Your task to perform on an android device: Open Reddit.com Image 0: 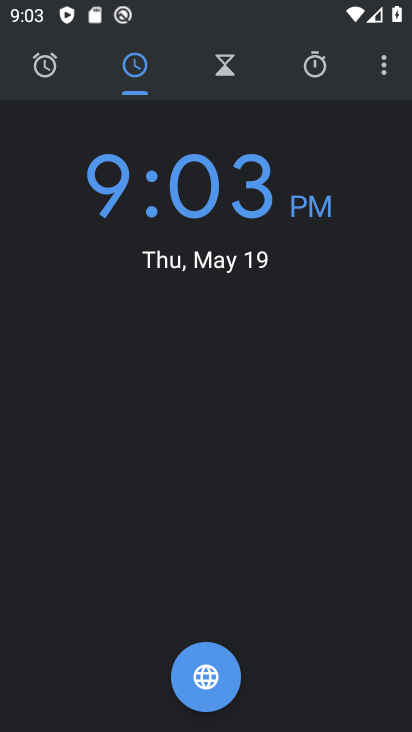
Step 0: press home button
Your task to perform on an android device: Open Reddit.com Image 1: 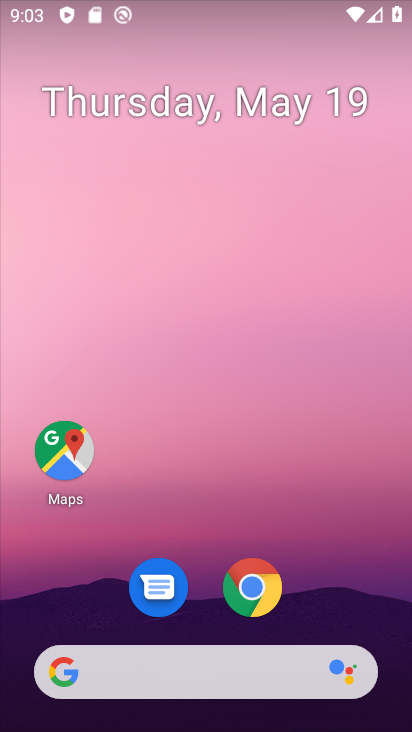
Step 1: click (243, 586)
Your task to perform on an android device: Open Reddit.com Image 2: 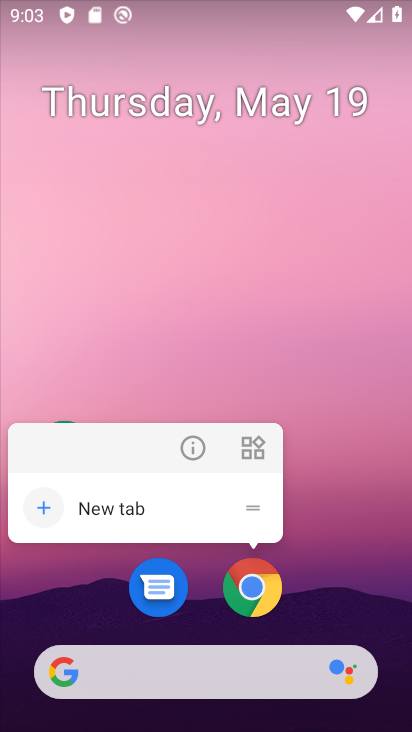
Step 2: click (250, 575)
Your task to perform on an android device: Open Reddit.com Image 3: 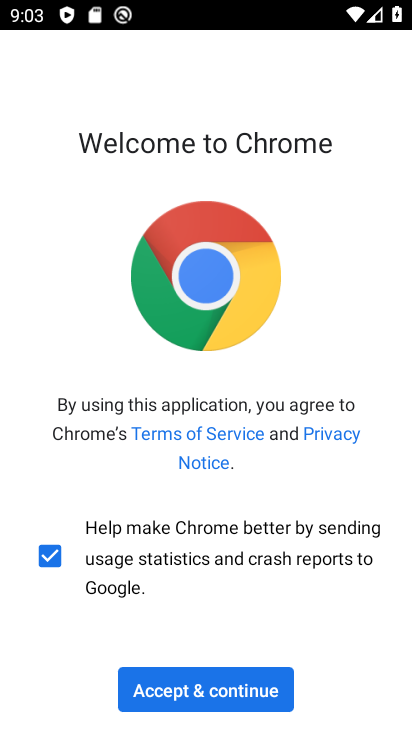
Step 3: click (164, 689)
Your task to perform on an android device: Open Reddit.com Image 4: 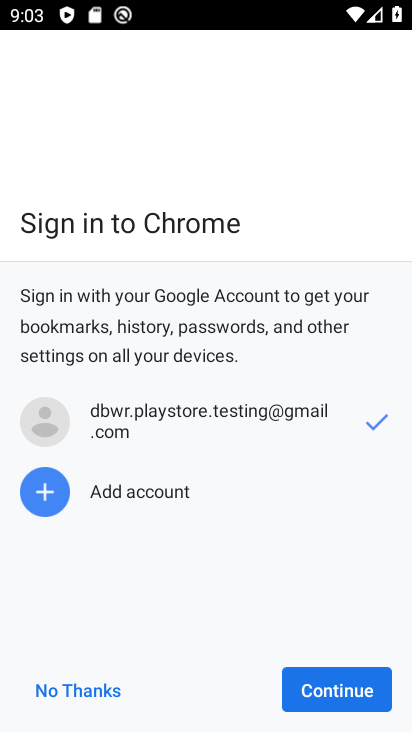
Step 4: click (340, 698)
Your task to perform on an android device: Open Reddit.com Image 5: 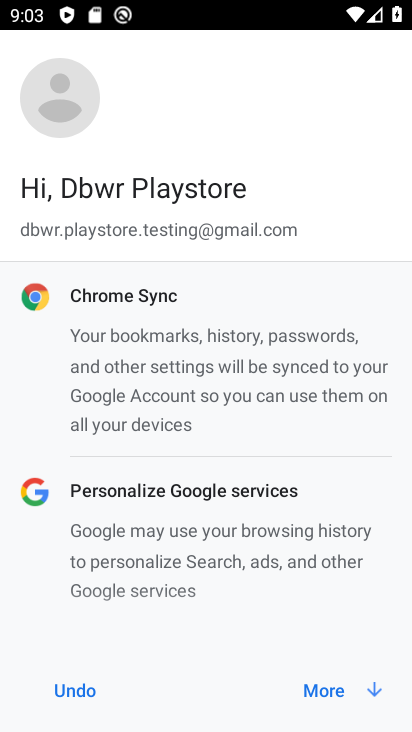
Step 5: click (317, 683)
Your task to perform on an android device: Open Reddit.com Image 6: 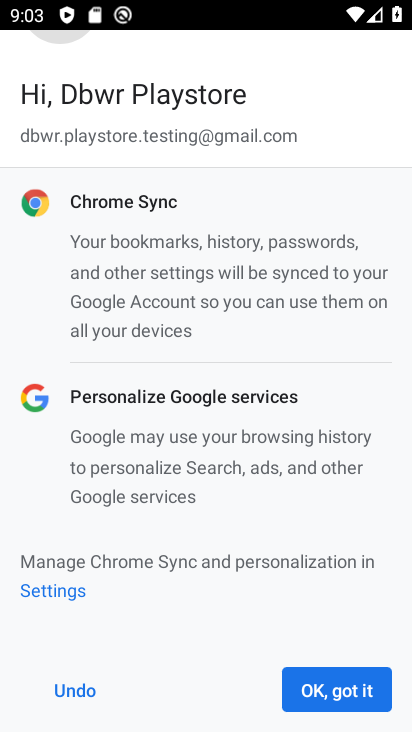
Step 6: click (317, 682)
Your task to perform on an android device: Open Reddit.com Image 7: 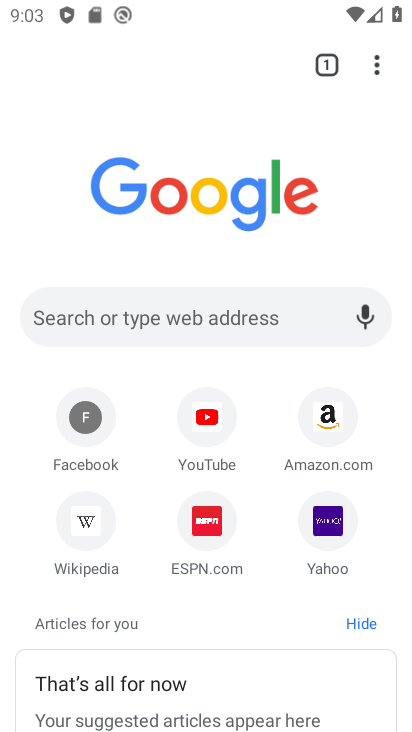
Step 7: click (226, 328)
Your task to perform on an android device: Open Reddit.com Image 8: 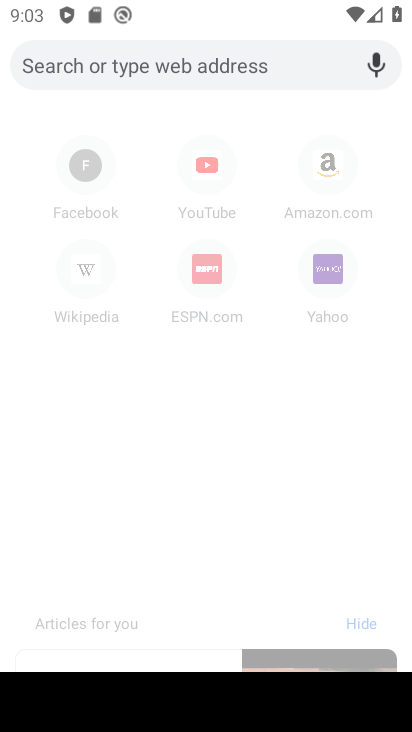
Step 8: type "reddit'"
Your task to perform on an android device: Open Reddit.com Image 9: 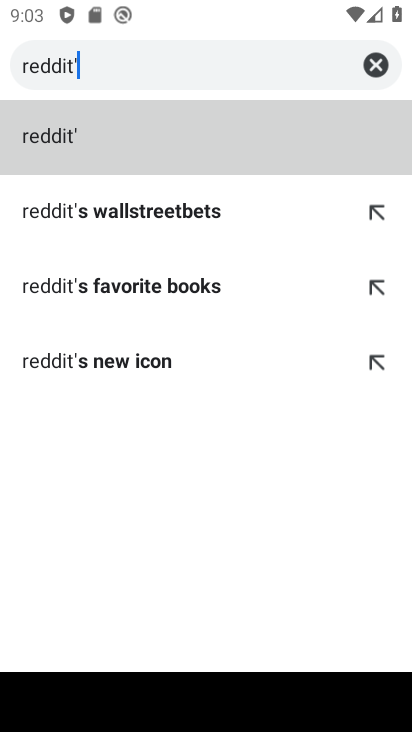
Step 9: click (81, 161)
Your task to perform on an android device: Open Reddit.com Image 10: 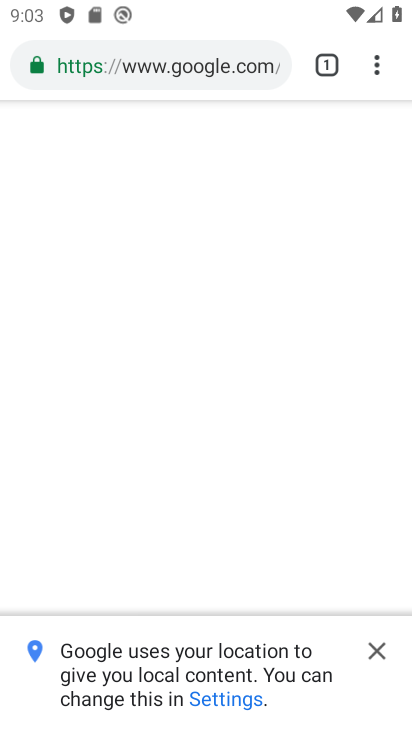
Step 10: click (378, 651)
Your task to perform on an android device: Open Reddit.com Image 11: 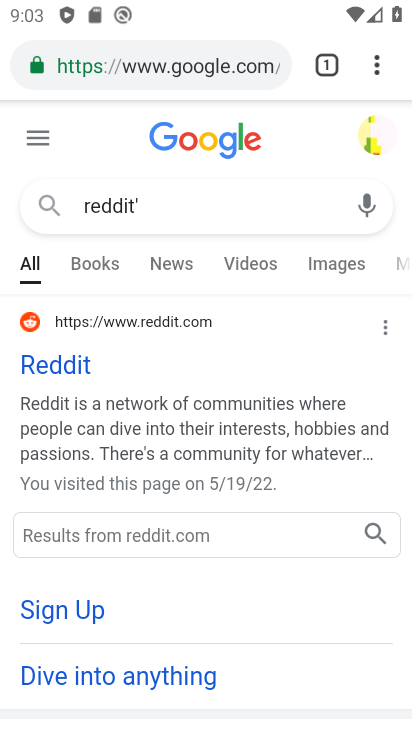
Step 11: click (59, 376)
Your task to perform on an android device: Open Reddit.com Image 12: 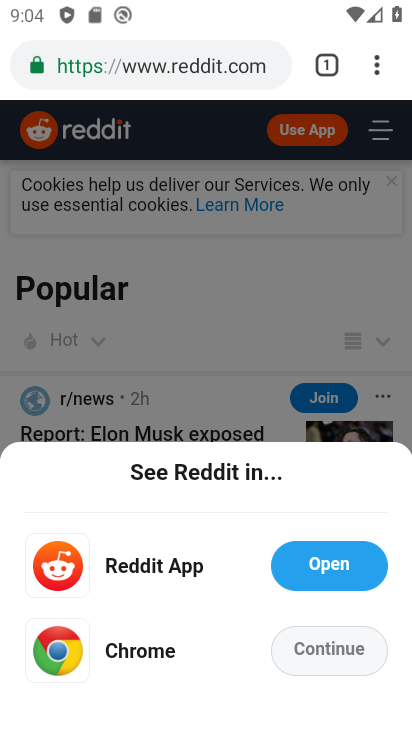
Step 12: click (341, 651)
Your task to perform on an android device: Open Reddit.com Image 13: 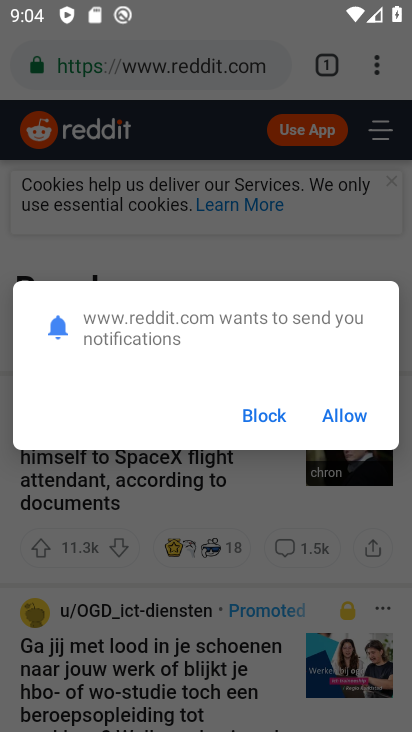
Step 13: click (355, 419)
Your task to perform on an android device: Open Reddit.com Image 14: 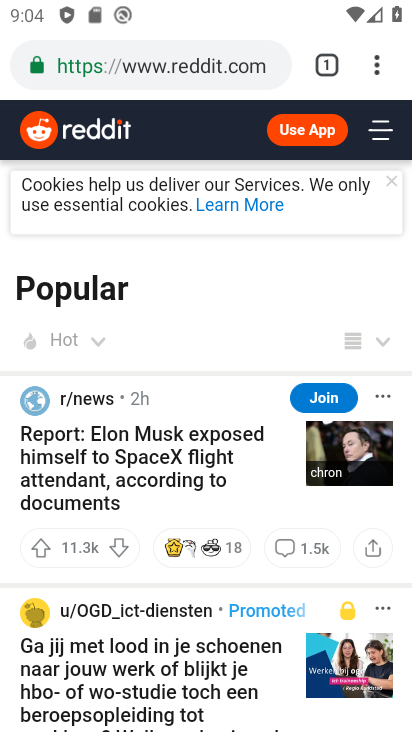
Step 14: task complete